Your task to perform on an android device: Turn on the flashlight Image 0: 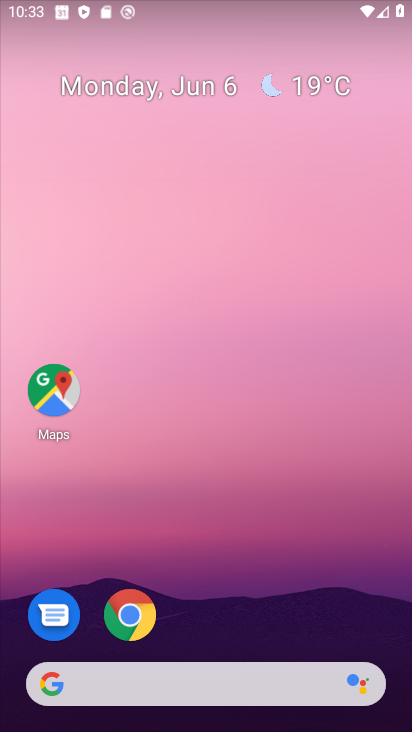
Step 0: drag from (307, 560) to (282, 92)
Your task to perform on an android device: Turn on the flashlight Image 1: 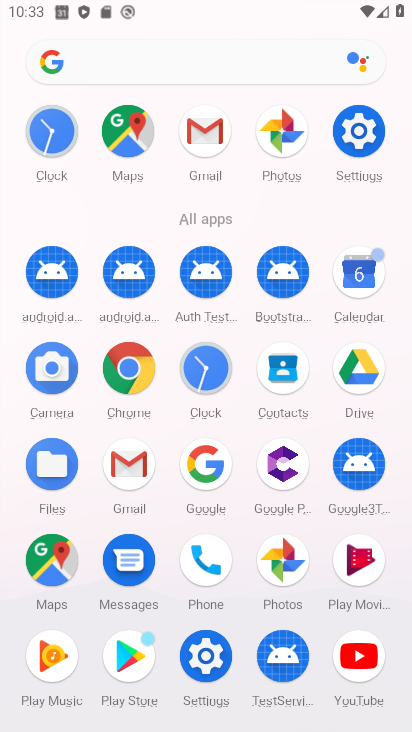
Step 1: task complete